Your task to perform on an android device: find snoozed emails in the gmail app Image 0: 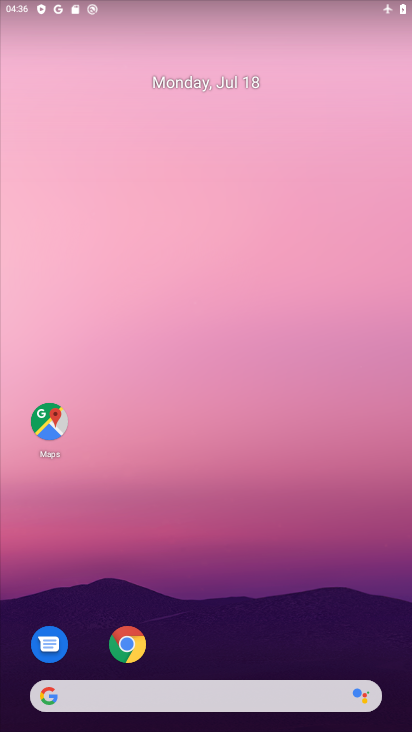
Step 0: drag from (213, 653) to (254, 37)
Your task to perform on an android device: find snoozed emails in the gmail app Image 1: 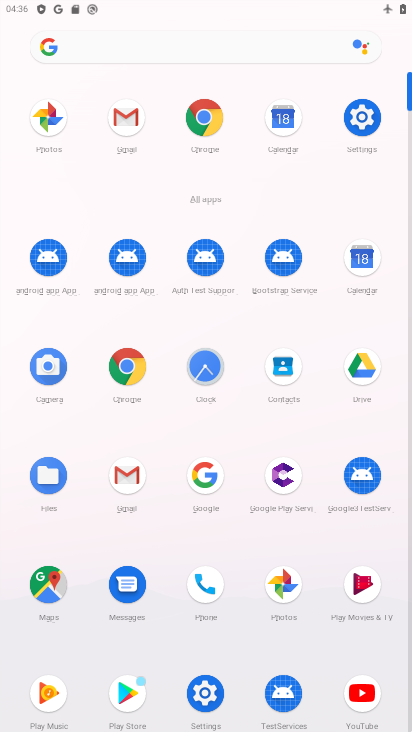
Step 1: click (120, 119)
Your task to perform on an android device: find snoozed emails in the gmail app Image 2: 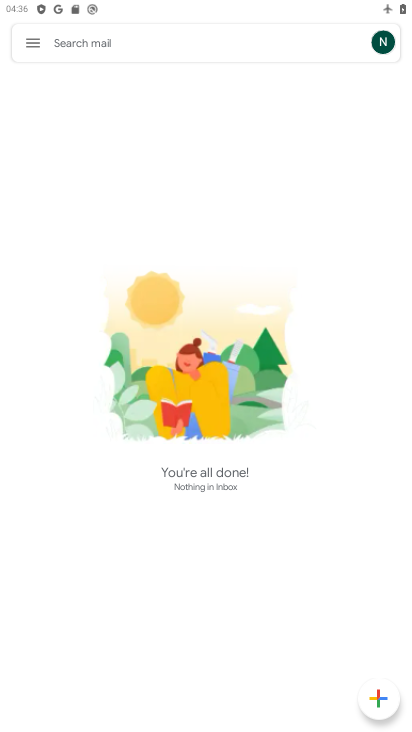
Step 2: click (26, 42)
Your task to perform on an android device: find snoozed emails in the gmail app Image 3: 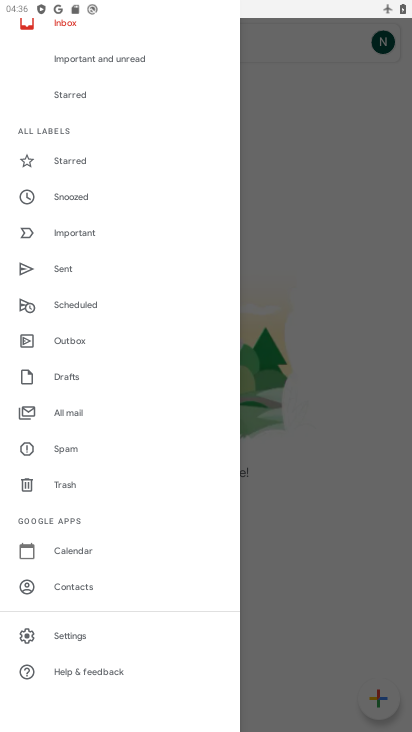
Step 3: click (82, 198)
Your task to perform on an android device: find snoozed emails in the gmail app Image 4: 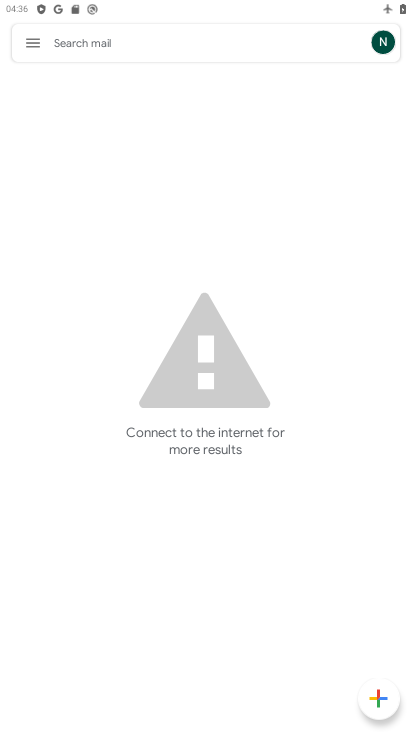
Step 4: task complete